Your task to perform on an android device: Open ESPN.com Image 0: 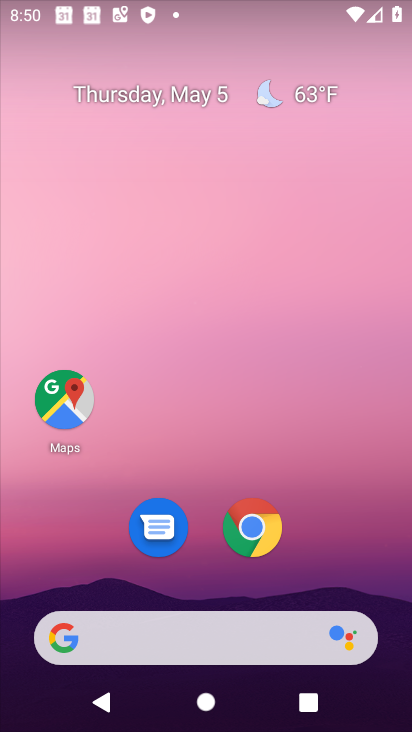
Step 0: click (204, 626)
Your task to perform on an android device: Open ESPN.com Image 1: 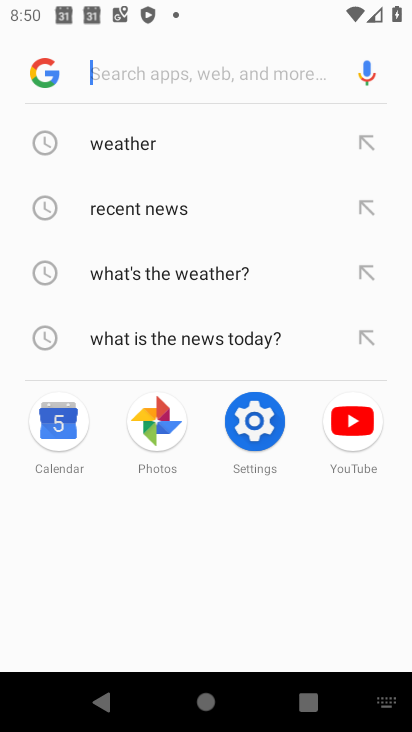
Step 1: type "espn.com"
Your task to perform on an android device: Open ESPN.com Image 2: 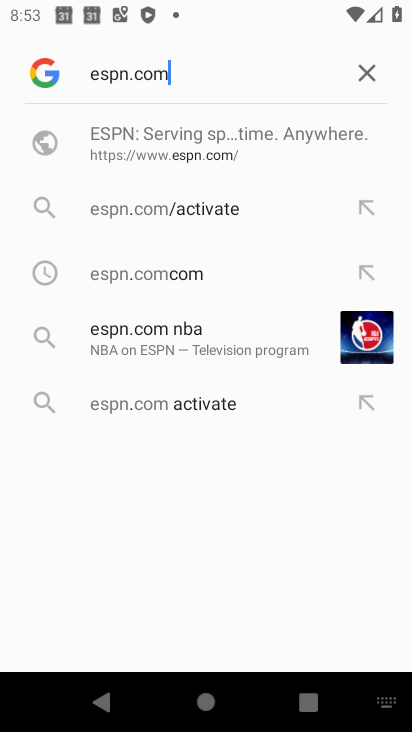
Step 2: click (175, 152)
Your task to perform on an android device: Open ESPN.com Image 3: 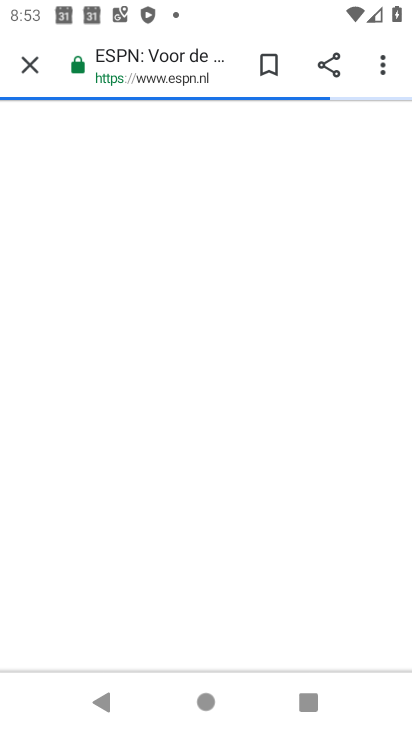
Step 3: task complete